Your task to perform on an android device: change alarm snooze length Image 0: 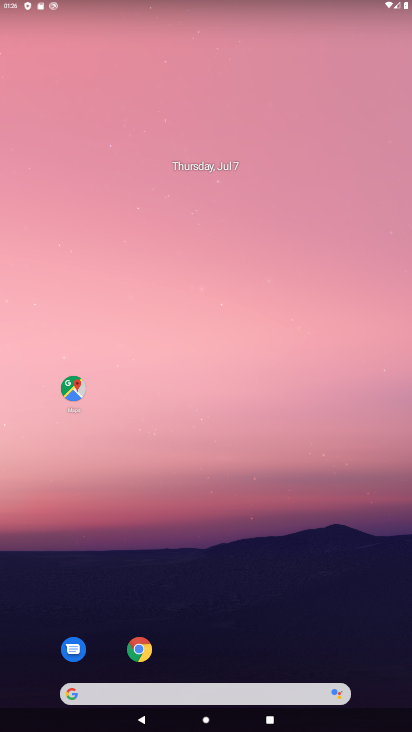
Step 0: press home button
Your task to perform on an android device: change alarm snooze length Image 1: 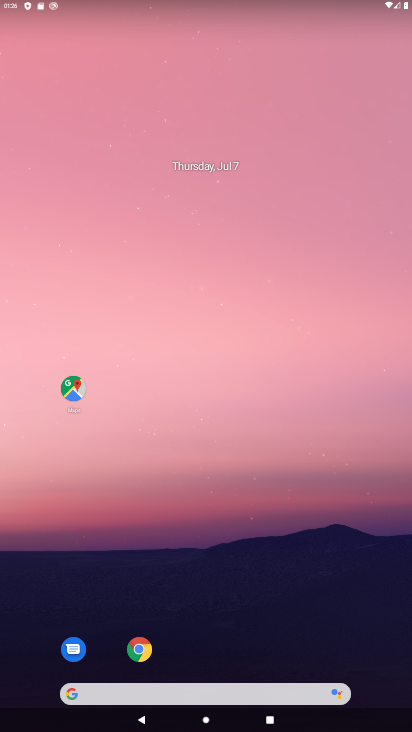
Step 1: drag from (253, 603) to (253, 6)
Your task to perform on an android device: change alarm snooze length Image 2: 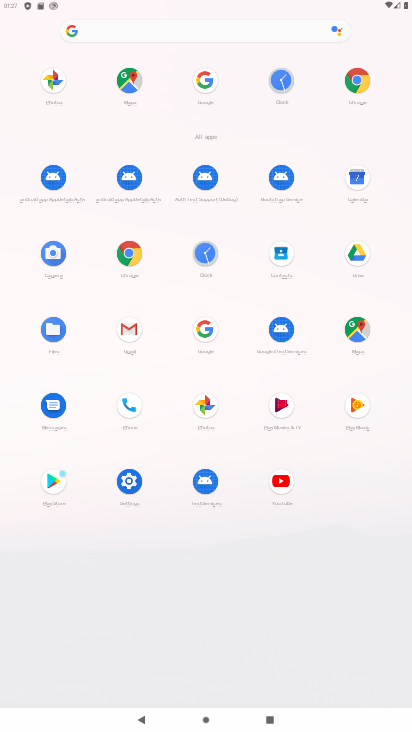
Step 2: click (199, 257)
Your task to perform on an android device: change alarm snooze length Image 3: 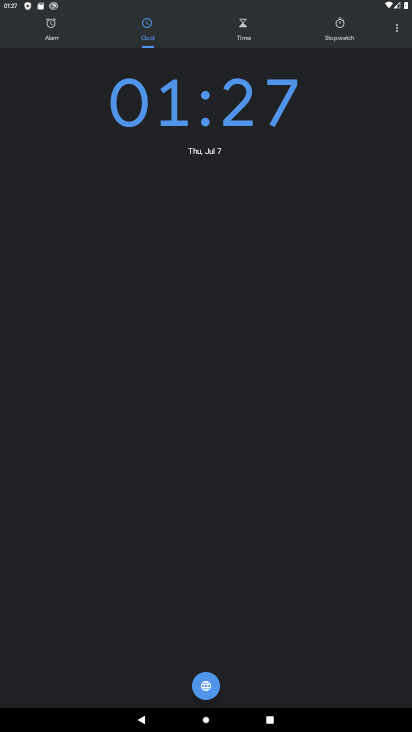
Step 3: click (396, 25)
Your task to perform on an android device: change alarm snooze length Image 4: 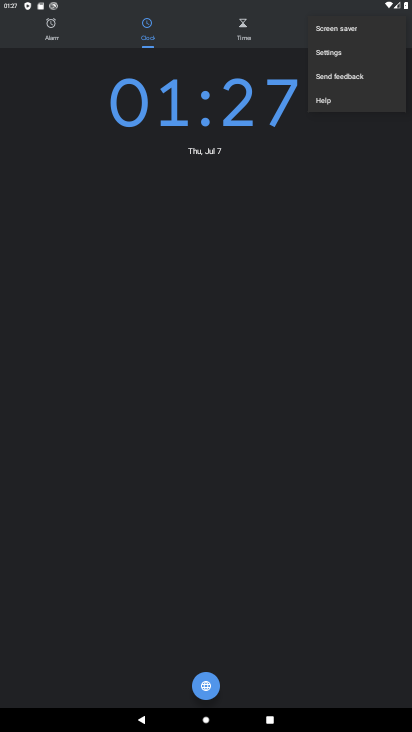
Step 4: click (323, 56)
Your task to perform on an android device: change alarm snooze length Image 5: 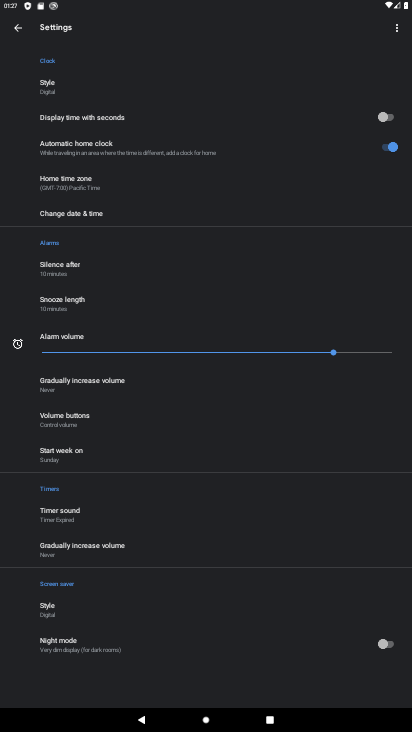
Step 5: click (93, 273)
Your task to perform on an android device: change alarm snooze length Image 6: 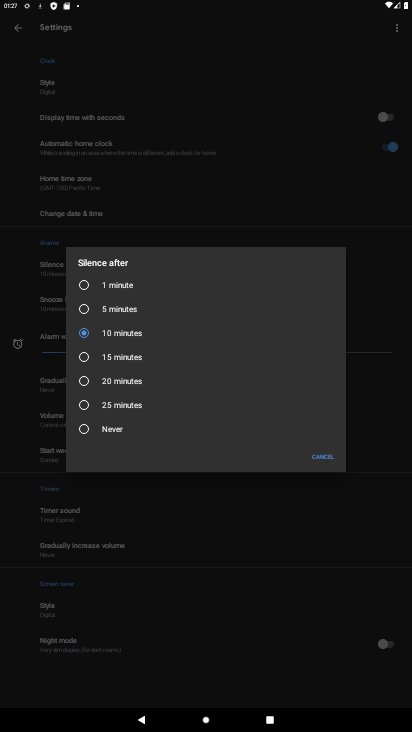
Step 6: click (127, 365)
Your task to perform on an android device: change alarm snooze length Image 7: 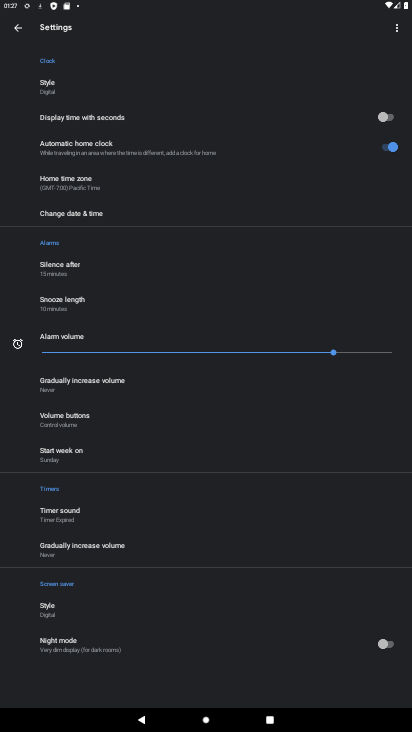
Step 7: task complete